Your task to perform on an android device: turn off notifications in google photos Image 0: 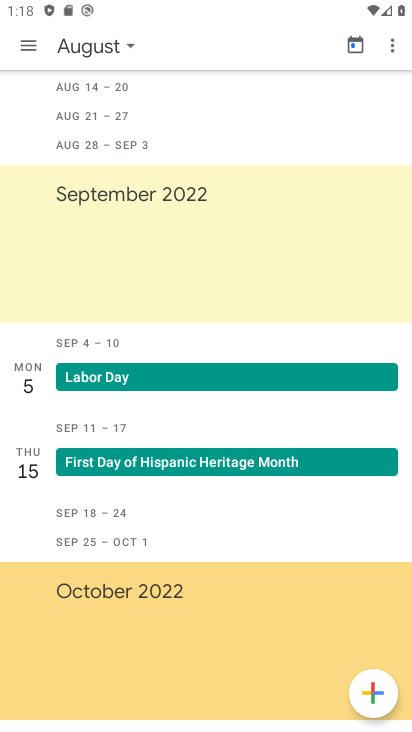
Step 0: press home button
Your task to perform on an android device: turn off notifications in google photos Image 1: 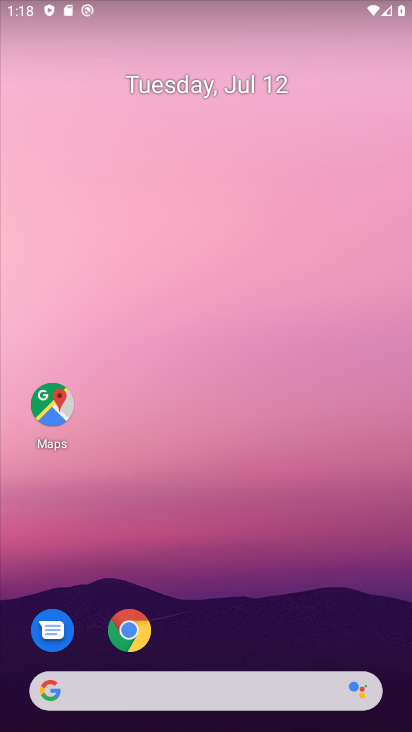
Step 1: drag from (341, 629) to (304, 105)
Your task to perform on an android device: turn off notifications in google photos Image 2: 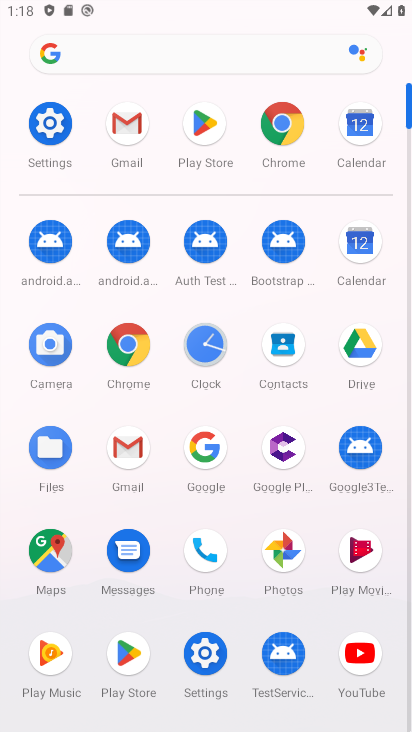
Step 2: click (283, 551)
Your task to perform on an android device: turn off notifications in google photos Image 3: 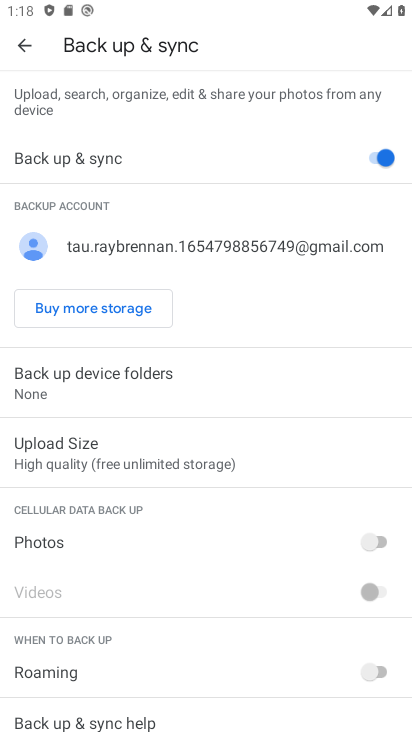
Step 3: drag from (165, 612) to (140, 128)
Your task to perform on an android device: turn off notifications in google photos Image 4: 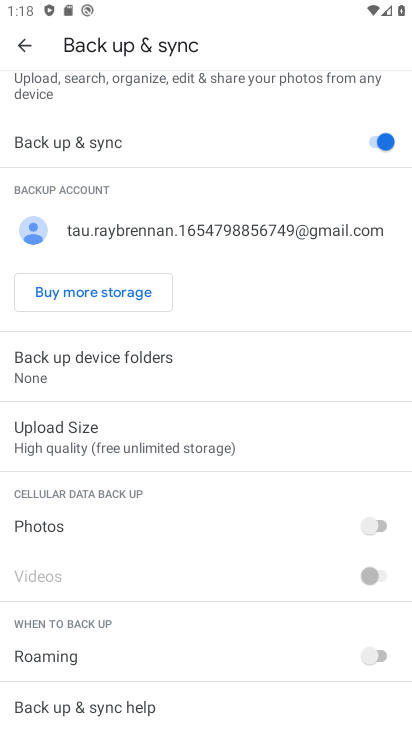
Step 4: drag from (211, 294) to (221, 616)
Your task to perform on an android device: turn off notifications in google photos Image 5: 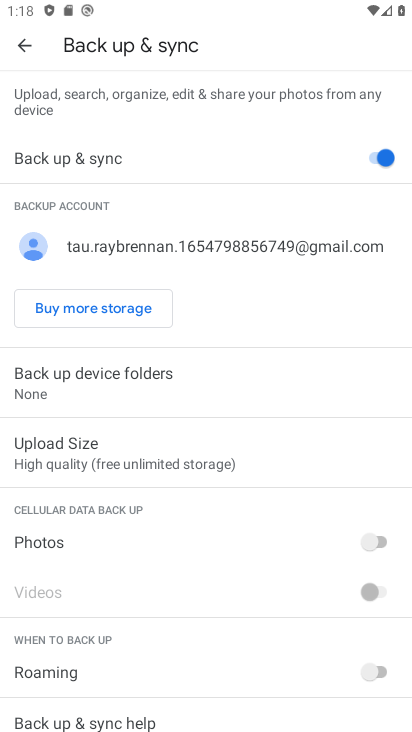
Step 5: press back button
Your task to perform on an android device: turn off notifications in google photos Image 6: 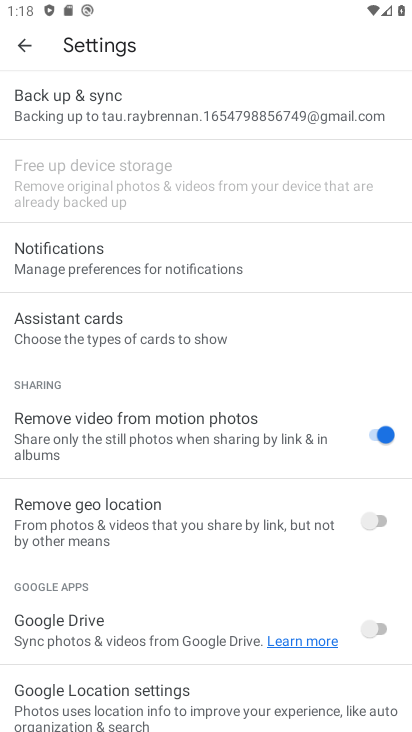
Step 6: click (33, 250)
Your task to perform on an android device: turn off notifications in google photos Image 7: 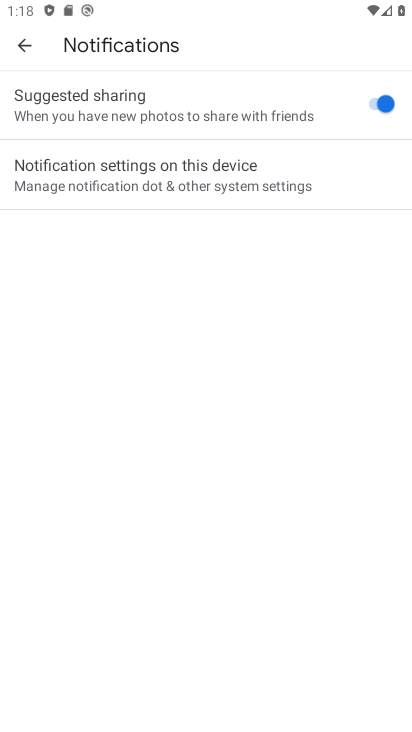
Step 7: click (105, 171)
Your task to perform on an android device: turn off notifications in google photos Image 8: 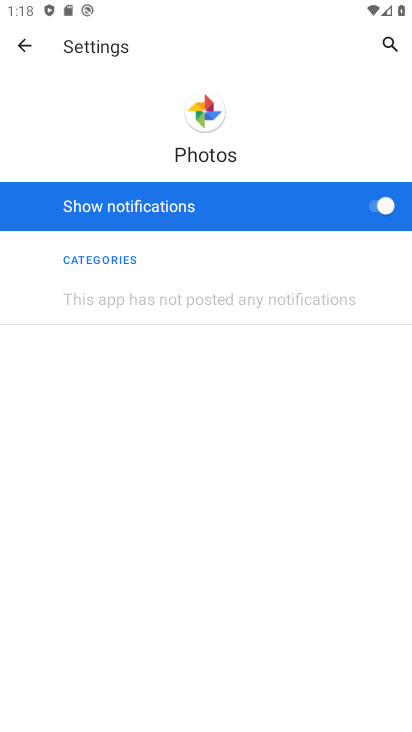
Step 8: click (370, 203)
Your task to perform on an android device: turn off notifications in google photos Image 9: 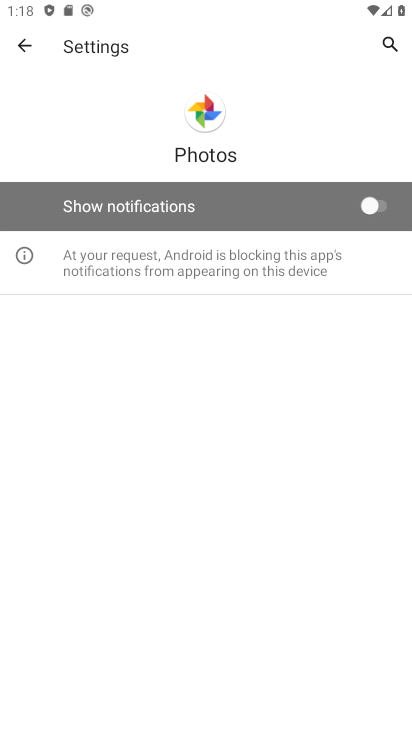
Step 9: task complete